Your task to perform on an android device: Open sound settings Image 0: 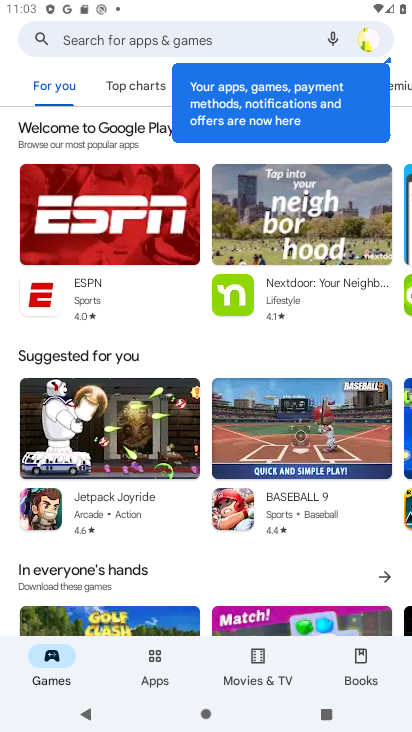
Step 0: press home button
Your task to perform on an android device: Open sound settings Image 1: 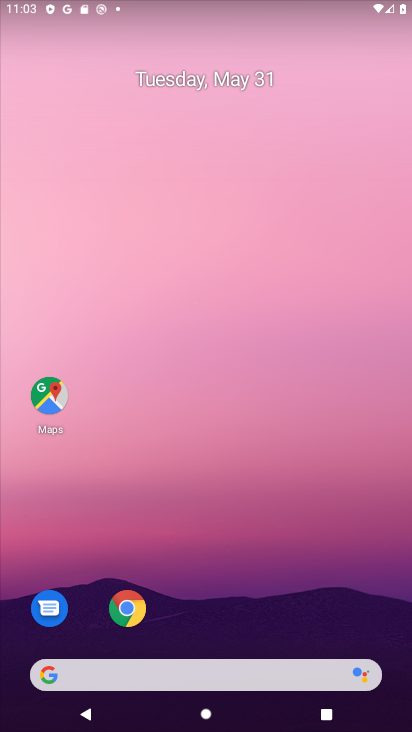
Step 1: drag from (265, 172) to (310, 5)
Your task to perform on an android device: Open sound settings Image 2: 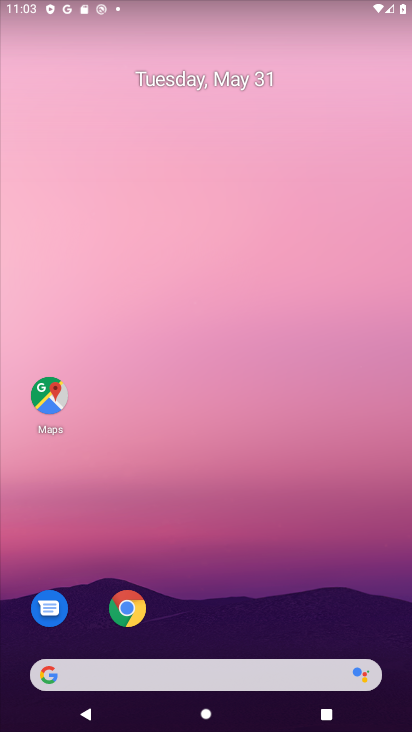
Step 2: drag from (305, 636) to (272, 384)
Your task to perform on an android device: Open sound settings Image 3: 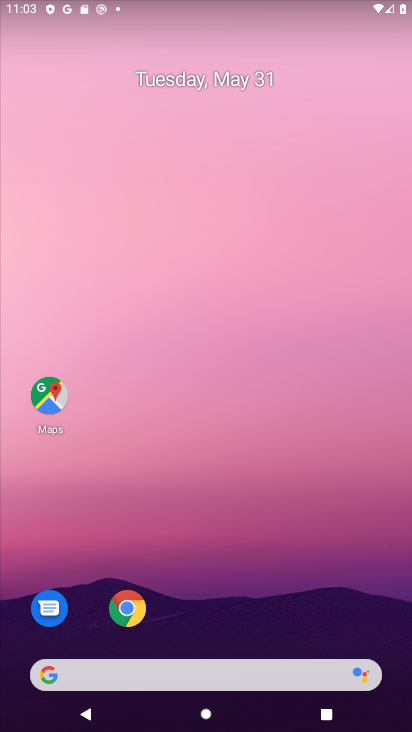
Step 3: drag from (305, 521) to (305, 0)
Your task to perform on an android device: Open sound settings Image 4: 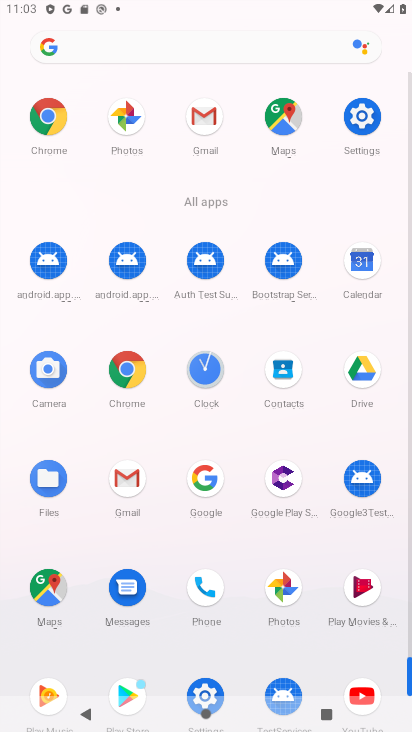
Step 4: click (361, 113)
Your task to perform on an android device: Open sound settings Image 5: 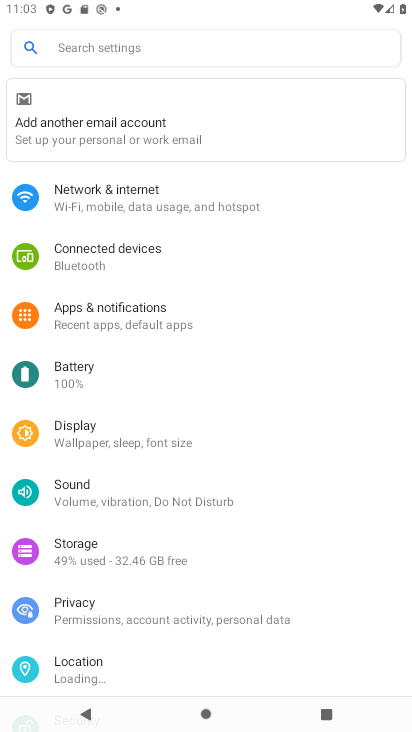
Step 5: click (70, 504)
Your task to perform on an android device: Open sound settings Image 6: 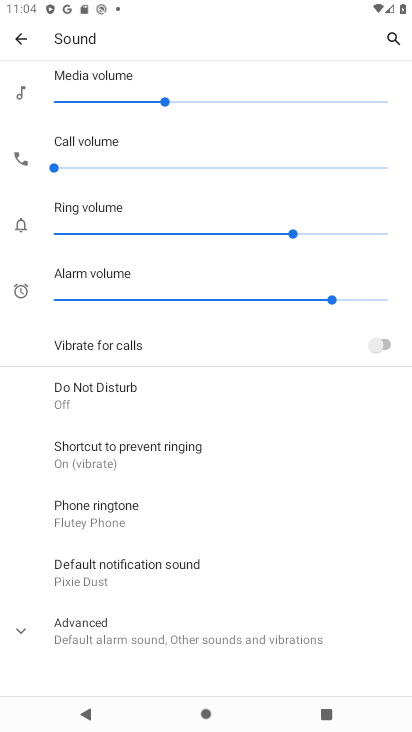
Step 6: task complete